Your task to perform on an android device: turn pop-ups on in chrome Image 0: 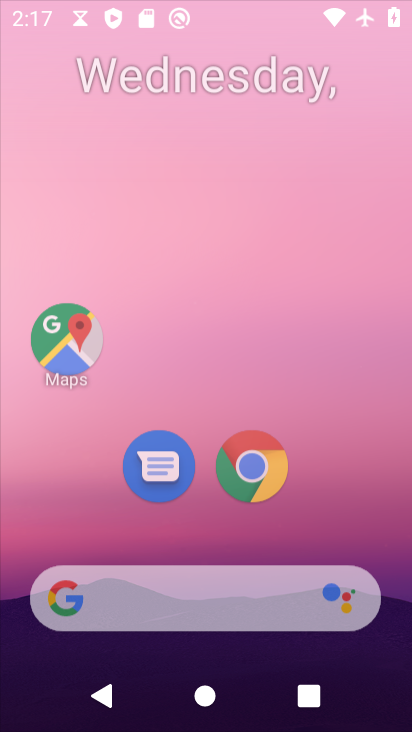
Step 0: click (226, 203)
Your task to perform on an android device: turn pop-ups on in chrome Image 1: 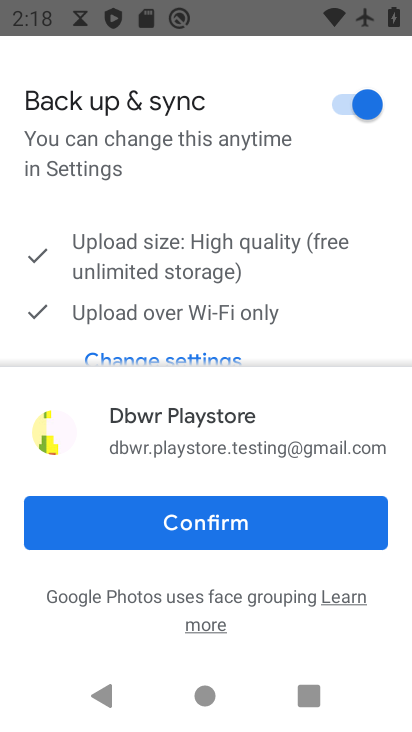
Step 1: click (231, 526)
Your task to perform on an android device: turn pop-ups on in chrome Image 2: 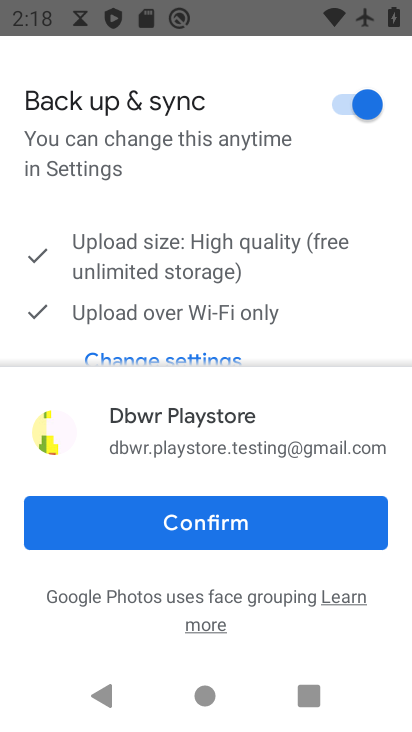
Step 2: click (231, 526)
Your task to perform on an android device: turn pop-ups on in chrome Image 3: 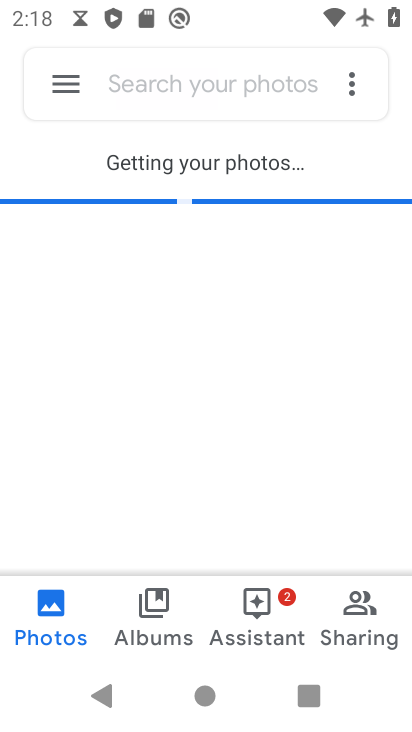
Step 3: press home button
Your task to perform on an android device: turn pop-ups on in chrome Image 4: 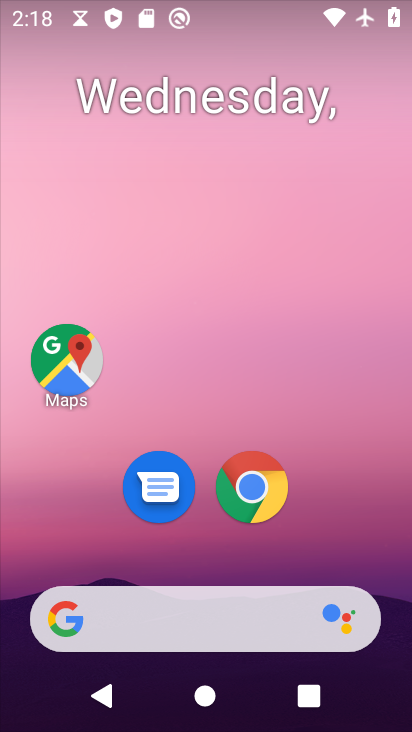
Step 4: drag from (353, 602) to (192, 160)
Your task to perform on an android device: turn pop-ups on in chrome Image 5: 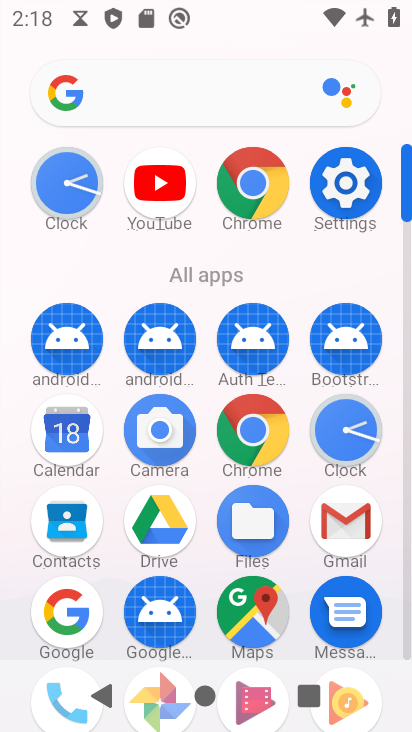
Step 5: click (243, 190)
Your task to perform on an android device: turn pop-ups on in chrome Image 6: 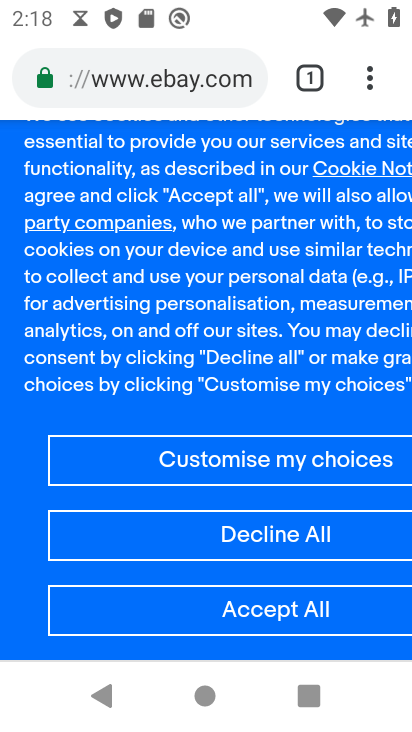
Step 6: click (370, 90)
Your task to perform on an android device: turn pop-ups on in chrome Image 7: 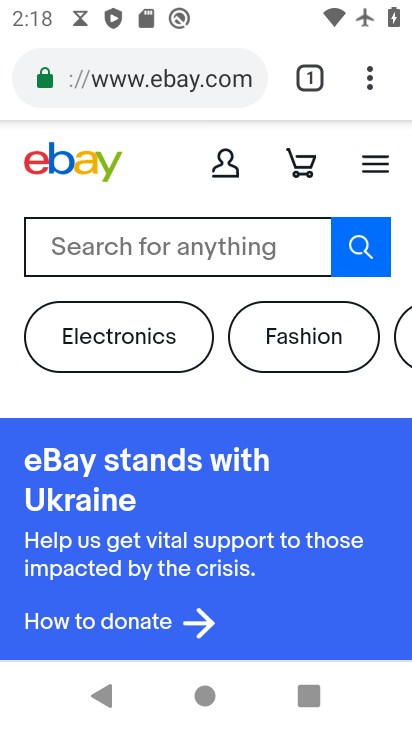
Step 7: drag from (368, 85) to (89, 556)
Your task to perform on an android device: turn pop-ups on in chrome Image 8: 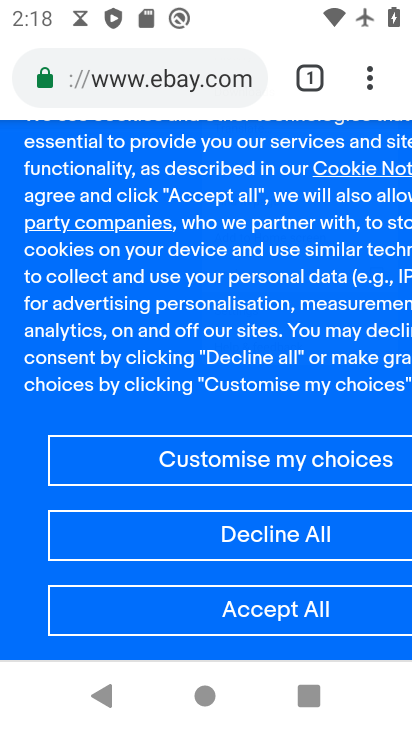
Step 8: click (89, 556)
Your task to perform on an android device: turn pop-ups on in chrome Image 9: 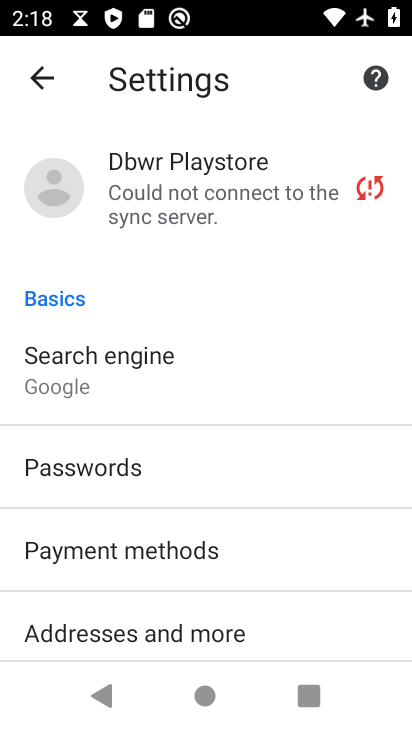
Step 9: click (363, 79)
Your task to perform on an android device: turn pop-ups on in chrome Image 10: 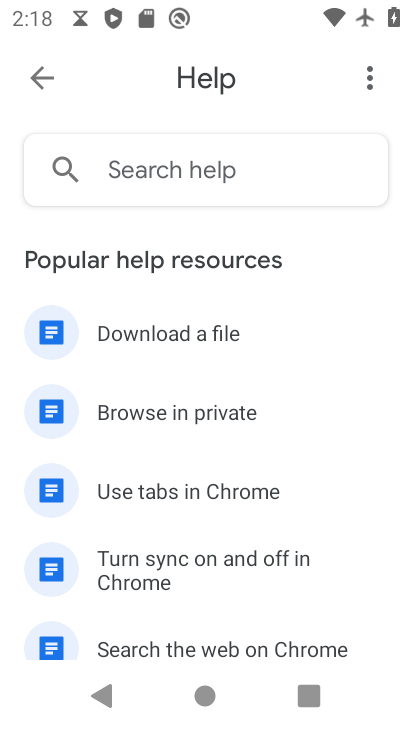
Step 10: drag from (167, 546) to (163, 289)
Your task to perform on an android device: turn pop-ups on in chrome Image 11: 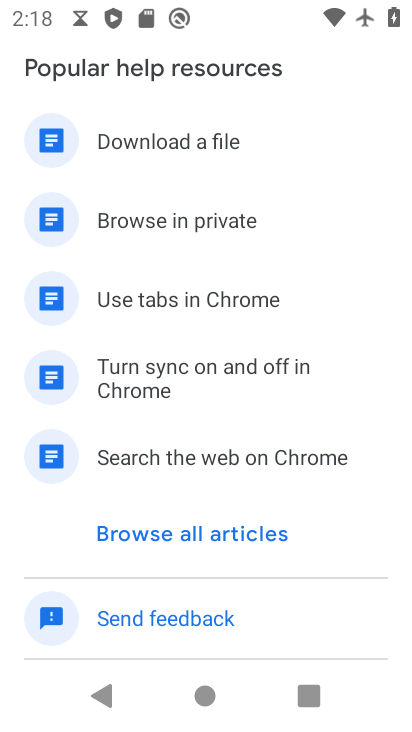
Step 11: press back button
Your task to perform on an android device: turn pop-ups on in chrome Image 12: 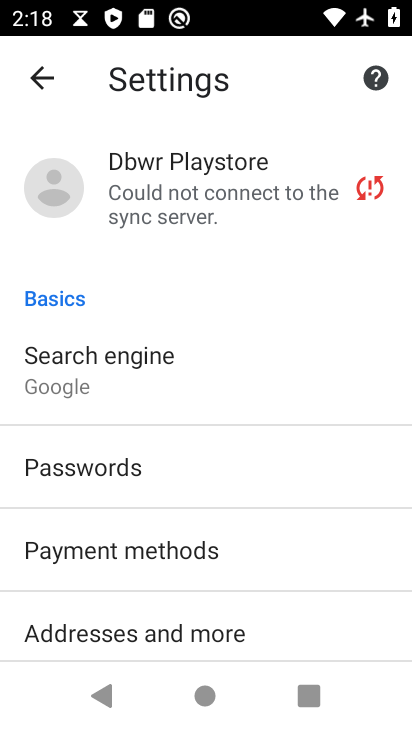
Step 12: drag from (76, 542) to (36, 225)
Your task to perform on an android device: turn pop-ups on in chrome Image 13: 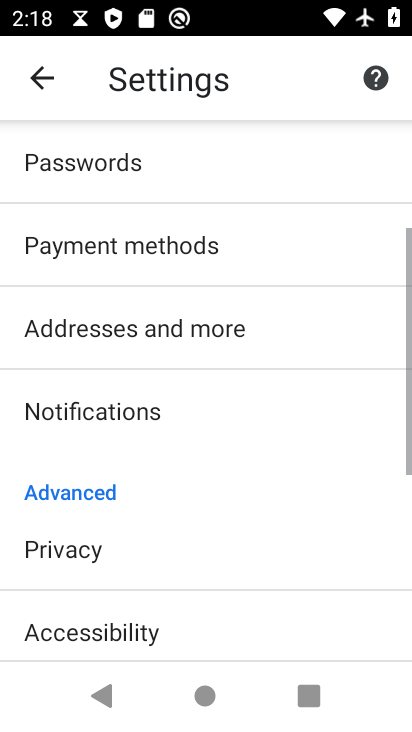
Step 13: drag from (100, 497) to (101, 227)
Your task to perform on an android device: turn pop-ups on in chrome Image 14: 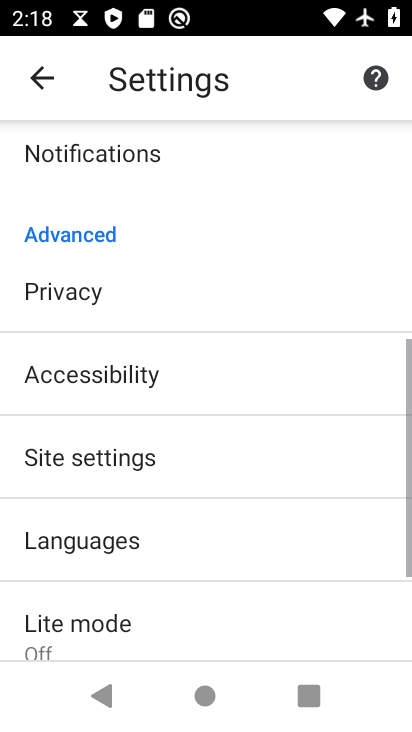
Step 14: drag from (117, 553) to (76, 178)
Your task to perform on an android device: turn pop-ups on in chrome Image 15: 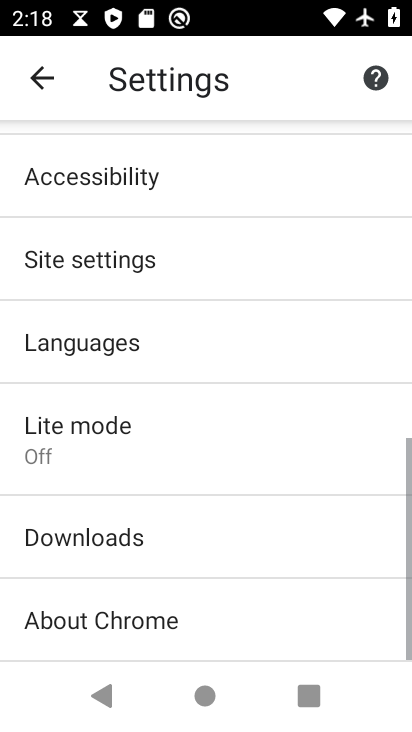
Step 15: drag from (153, 531) to (135, 155)
Your task to perform on an android device: turn pop-ups on in chrome Image 16: 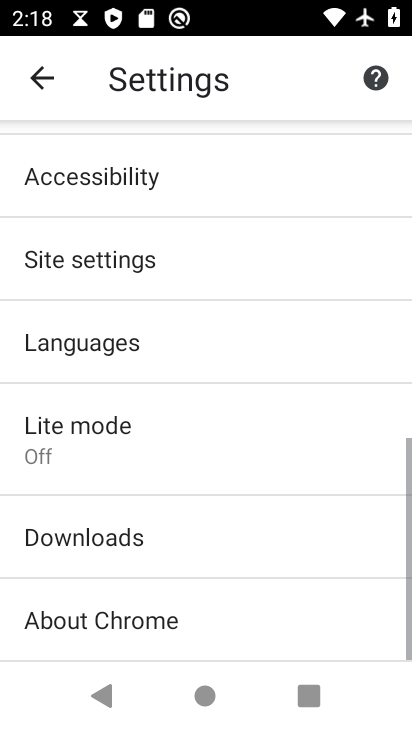
Step 16: drag from (113, 526) to (92, 195)
Your task to perform on an android device: turn pop-ups on in chrome Image 17: 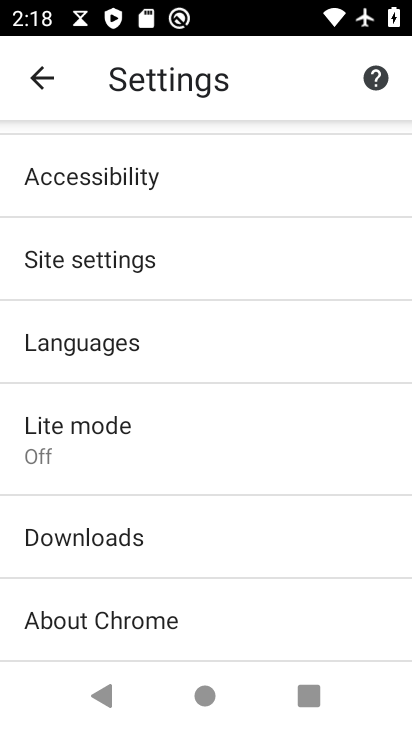
Step 17: drag from (93, 567) to (84, 110)
Your task to perform on an android device: turn pop-ups on in chrome Image 18: 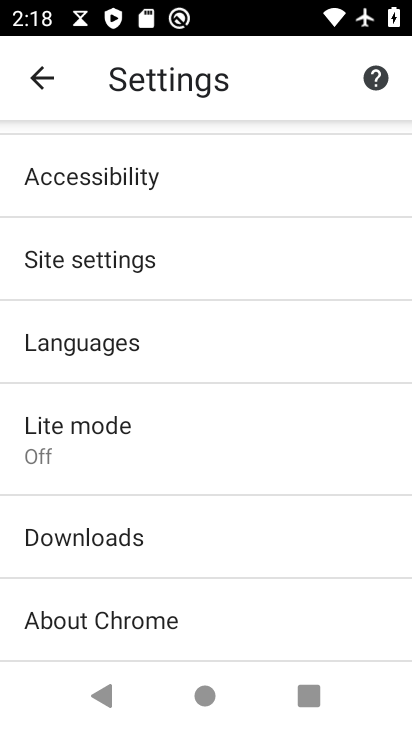
Step 18: click (83, 248)
Your task to perform on an android device: turn pop-ups on in chrome Image 19: 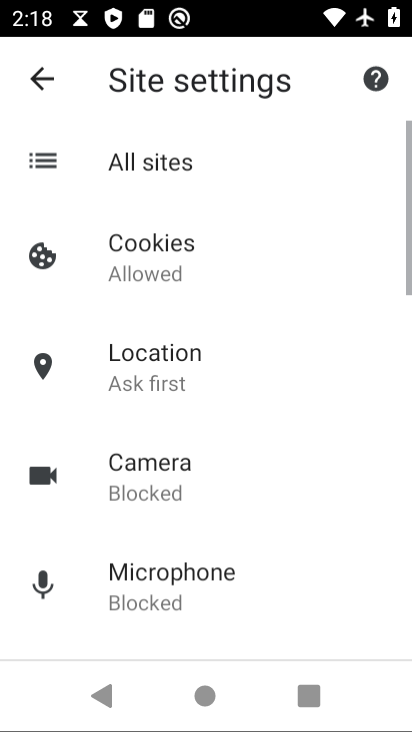
Step 19: click (83, 248)
Your task to perform on an android device: turn pop-ups on in chrome Image 20: 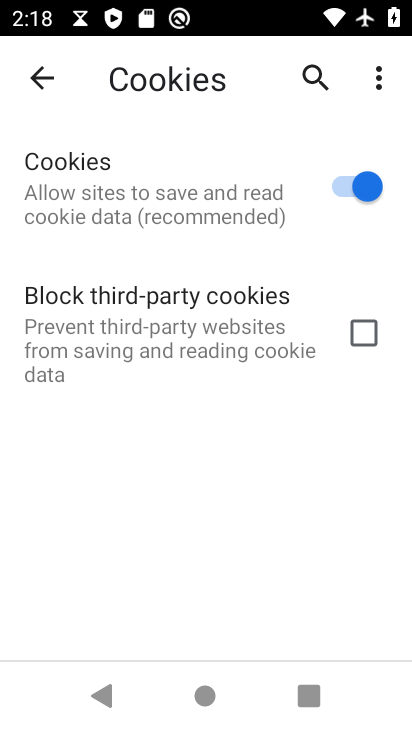
Step 20: click (26, 73)
Your task to perform on an android device: turn pop-ups on in chrome Image 21: 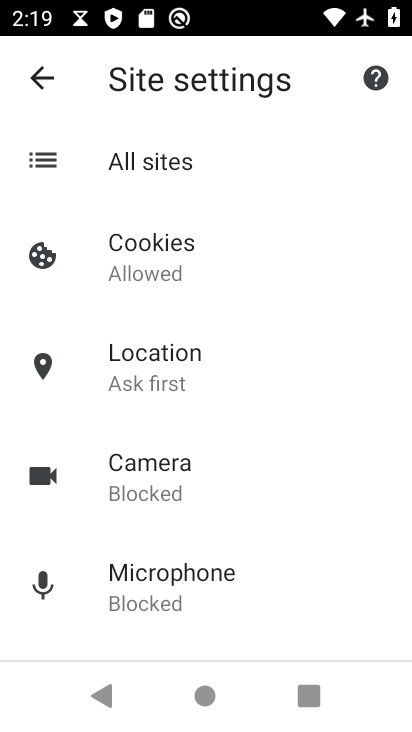
Step 21: drag from (193, 544) to (182, 294)
Your task to perform on an android device: turn pop-ups on in chrome Image 22: 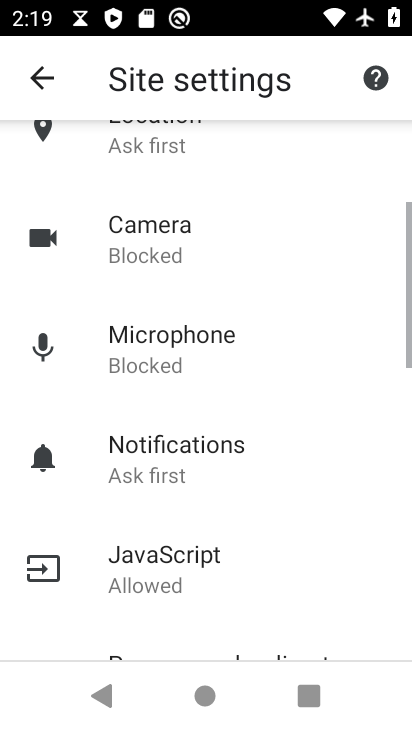
Step 22: drag from (181, 402) to (158, 221)
Your task to perform on an android device: turn pop-ups on in chrome Image 23: 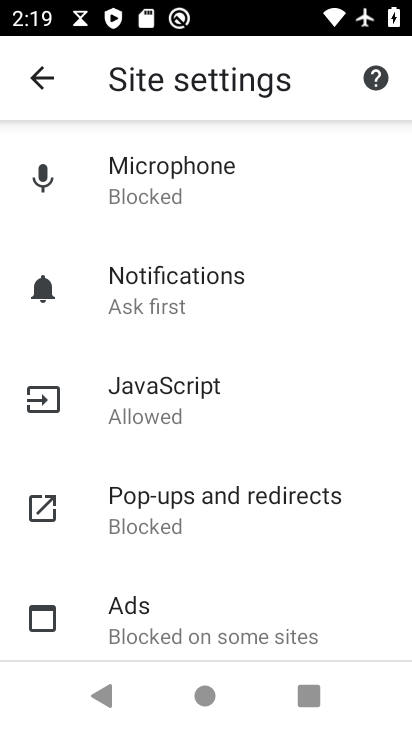
Step 23: click (155, 517)
Your task to perform on an android device: turn pop-ups on in chrome Image 24: 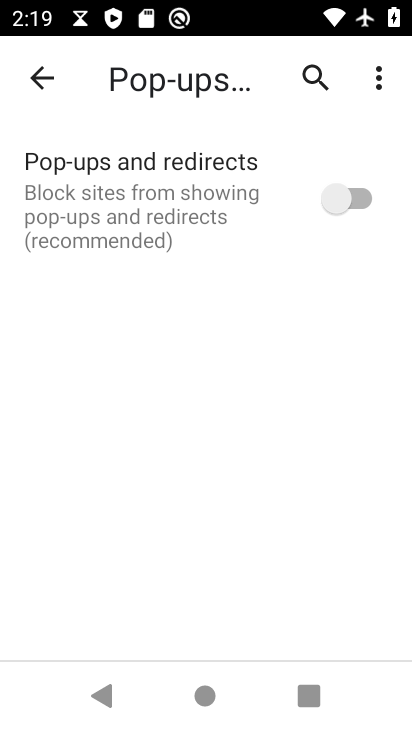
Step 24: click (331, 198)
Your task to perform on an android device: turn pop-ups on in chrome Image 25: 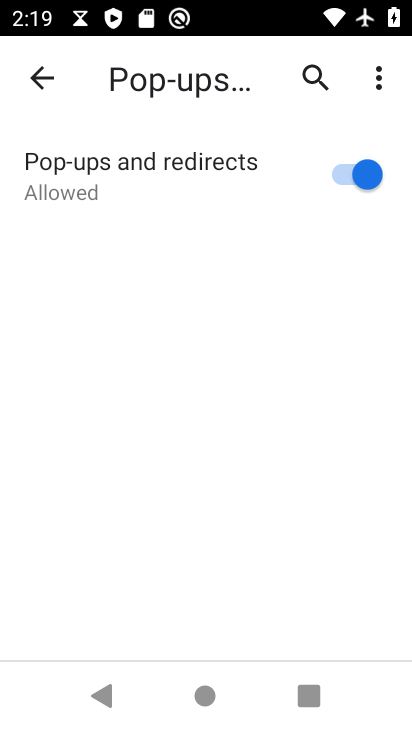
Step 25: task complete